Your task to perform on an android device: Check the weather Image 0: 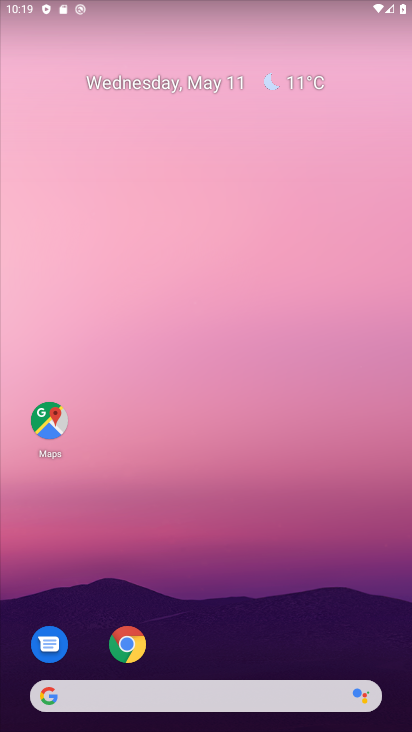
Step 0: click (298, 92)
Your task to perform on an android device: Check the weather Image 1: 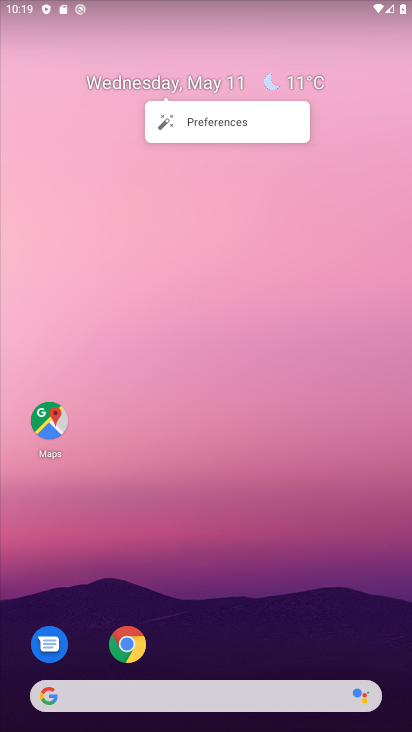
Step 1: click (304, 89)
Your task to perform on an android device: Check the weather Image 2: 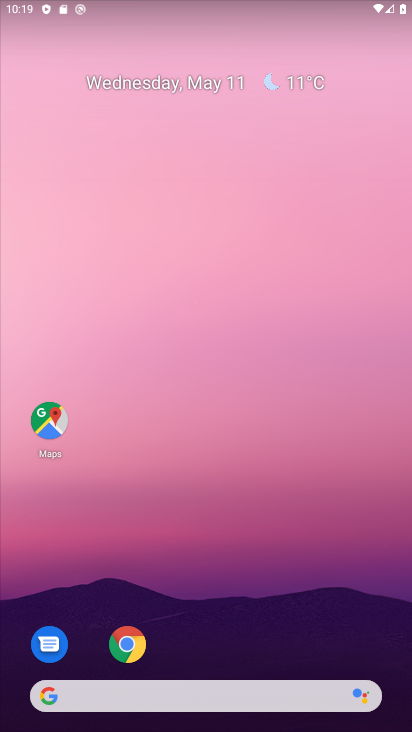
Step 2: click (311, 84)
Your task to perform on an android device: Check the weather Image 3: 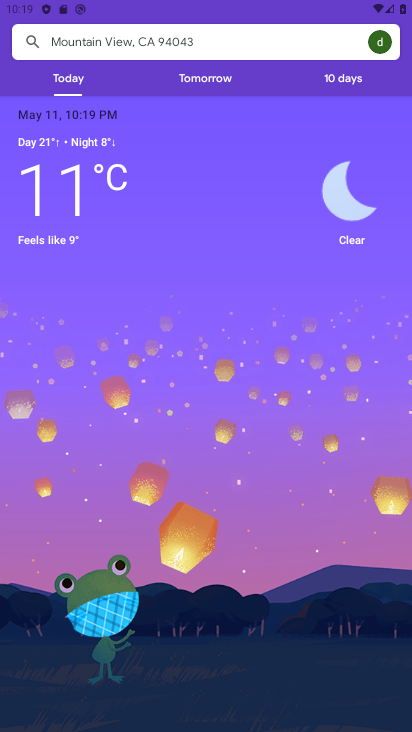
Step 3: task complete